Your task to perform on an android device: install app "Move to iOS" Image 0: 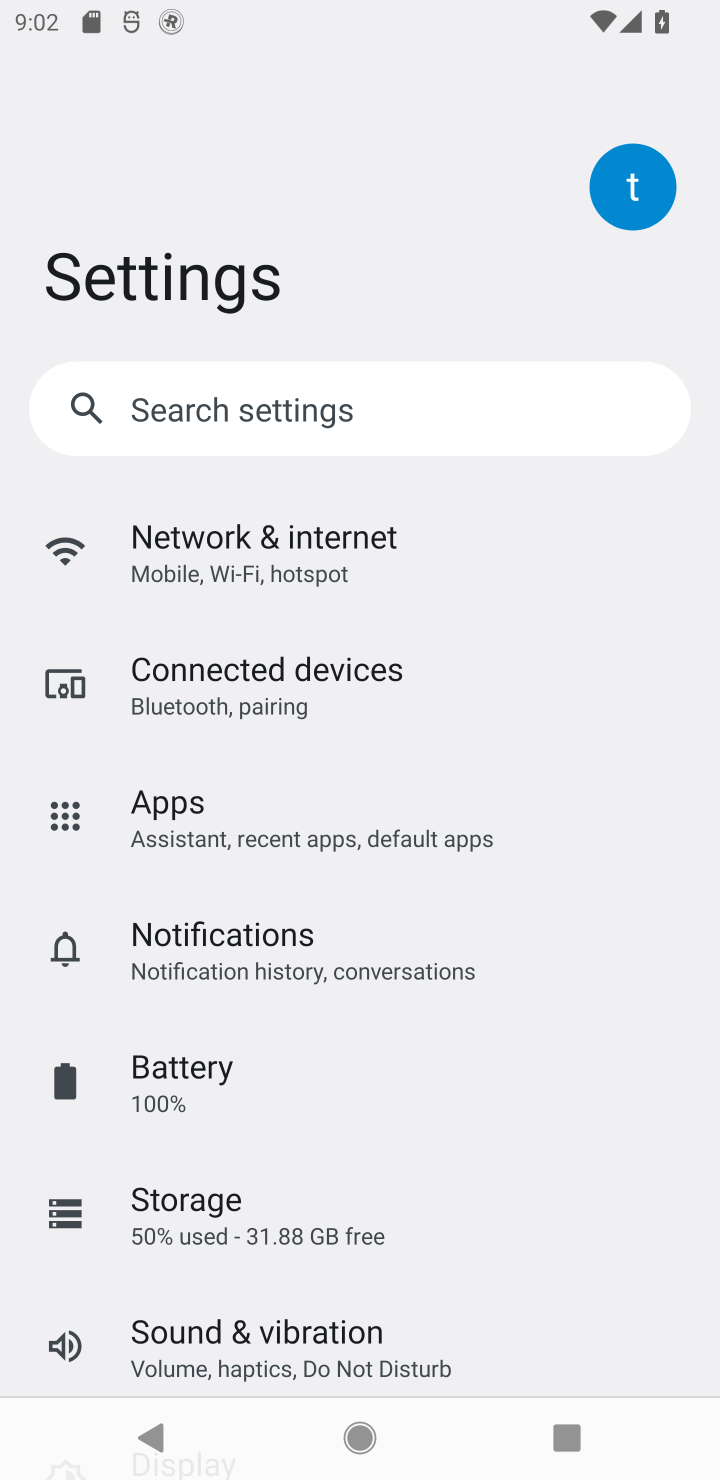
Step 0: press home button
Your task to perform on an android device: install app "Move to iOS" Image 1: 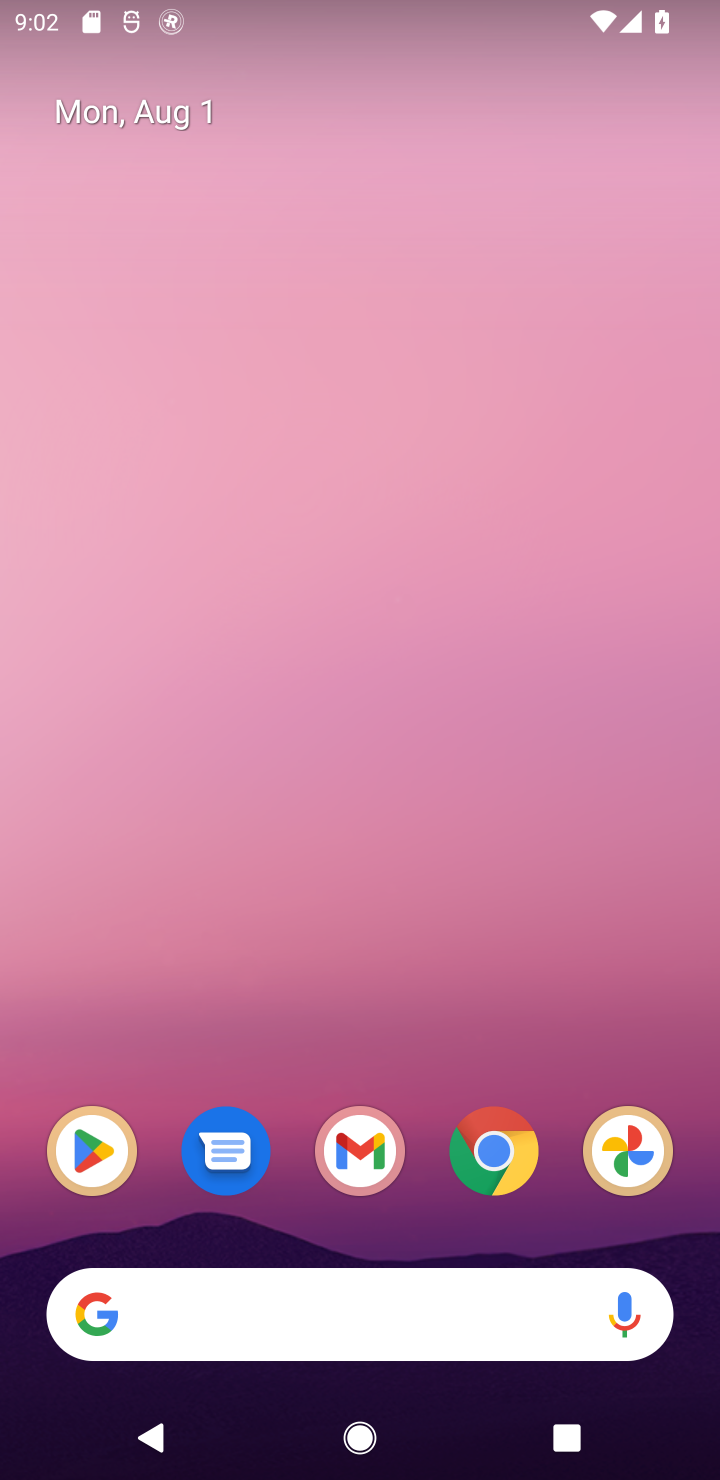
Step 1: click (90, 1191)
Your task to perform on an android device: install app "Move to iOS" Image 2: 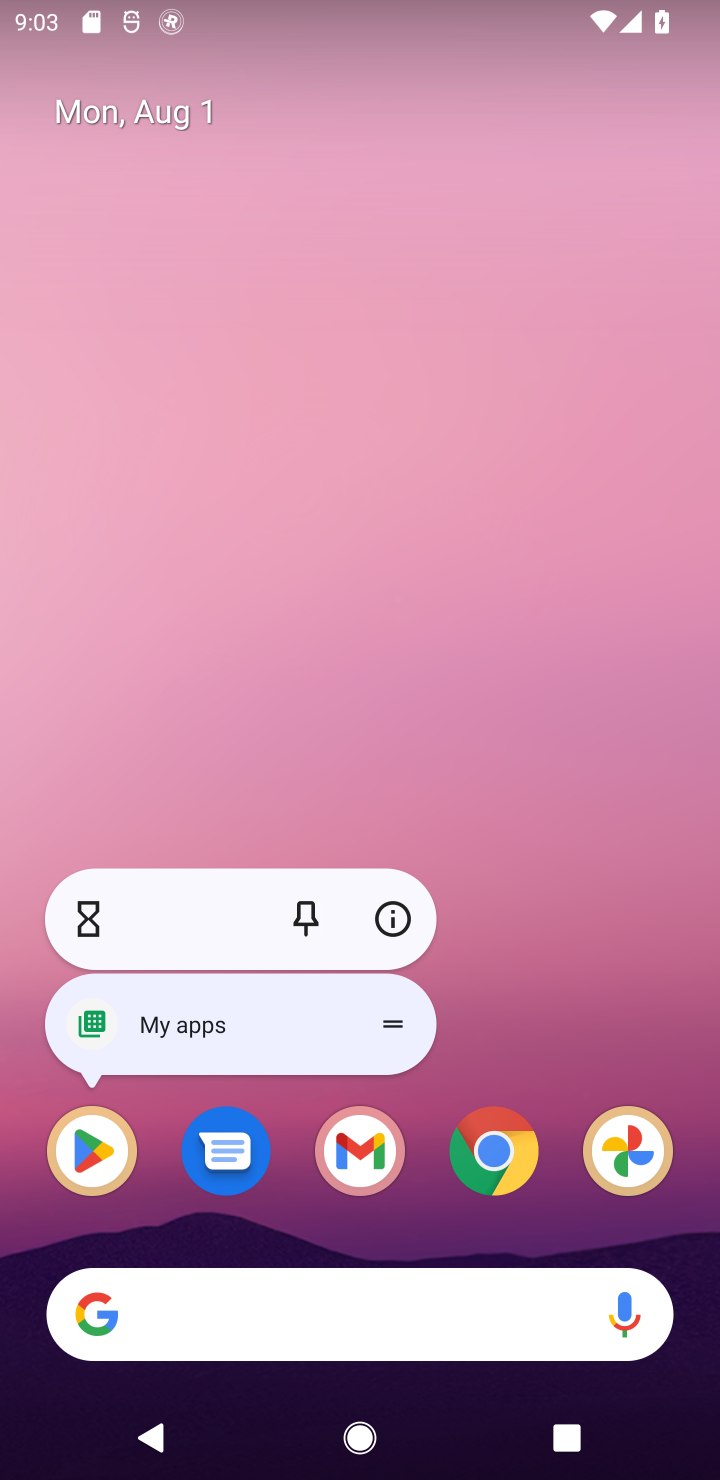
Step 2: click (95, 1163)
Your task to perform on an android device: install app "Move to iOS" Image 3: 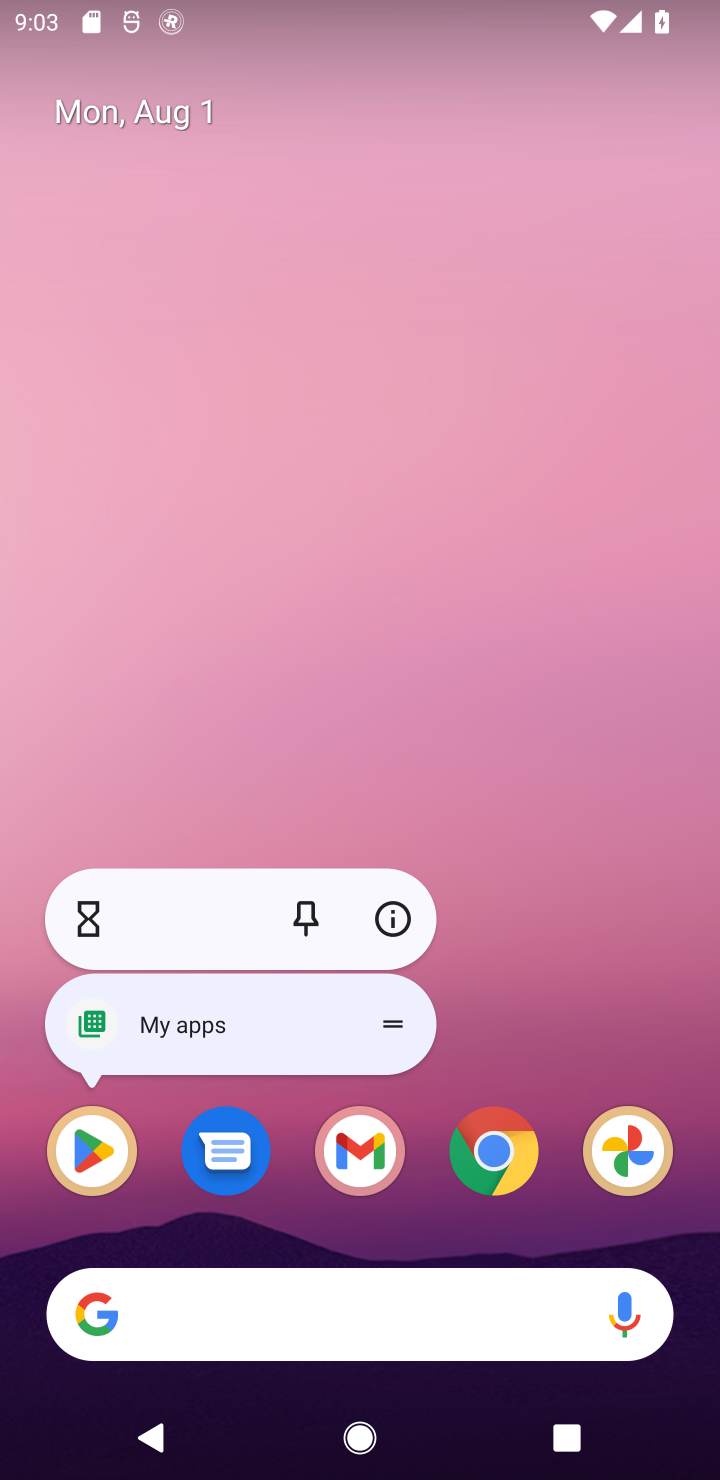
Step 3: click (95, 1163)
Your task to perform on an android device: install app "Move to iOS" Image 4: 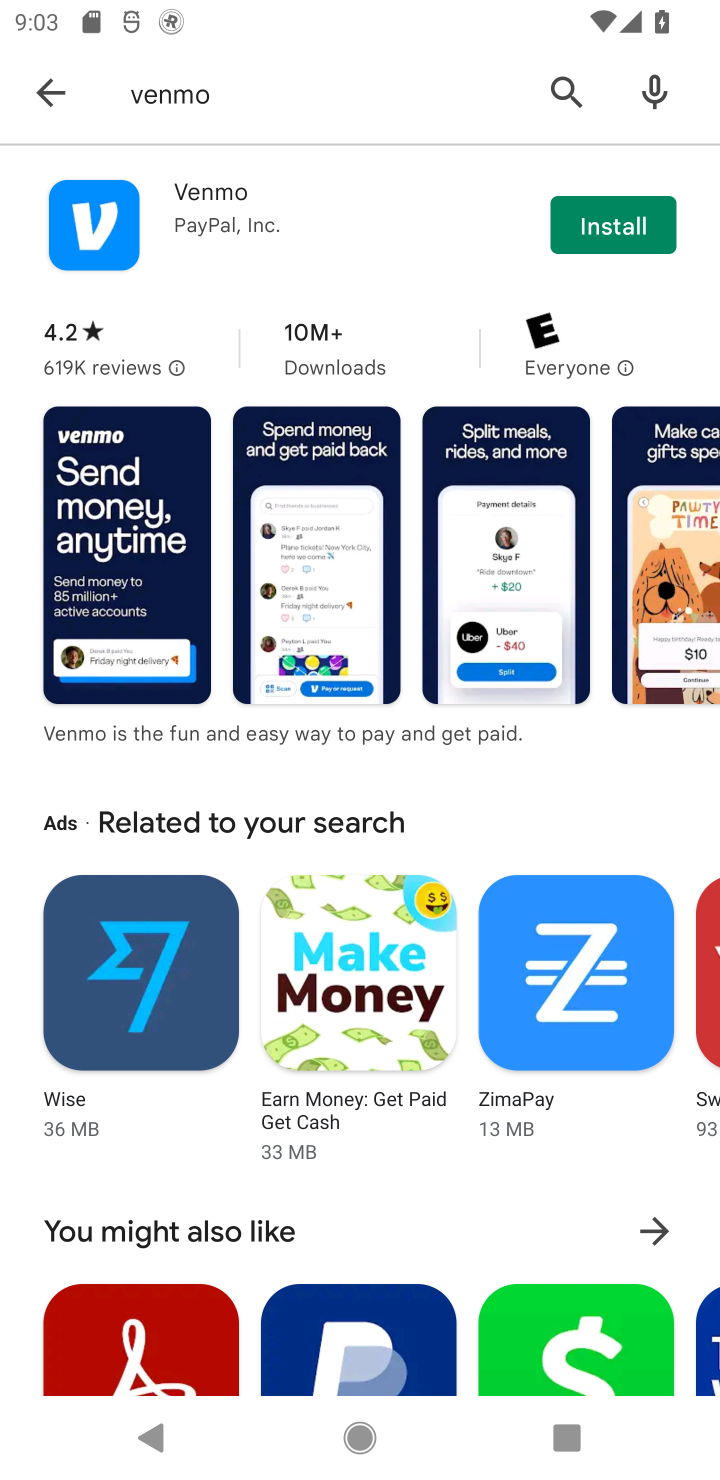
Step 4: click (558, 103)
Your task to perform on an android device: install app "Move to iOS" Image 5: 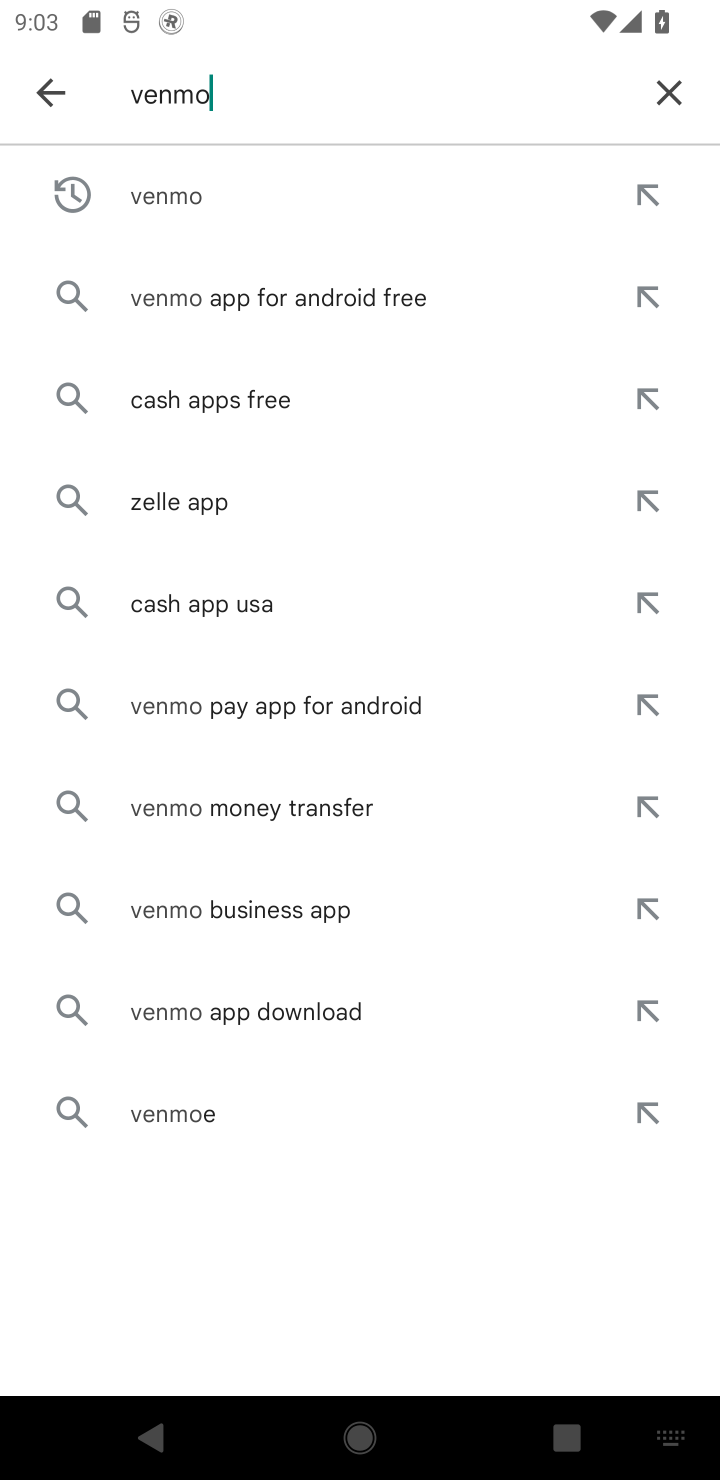
Step 5: click (673, 92)
Your task to perform on an android device: install app "Move to iOS" Image 6: 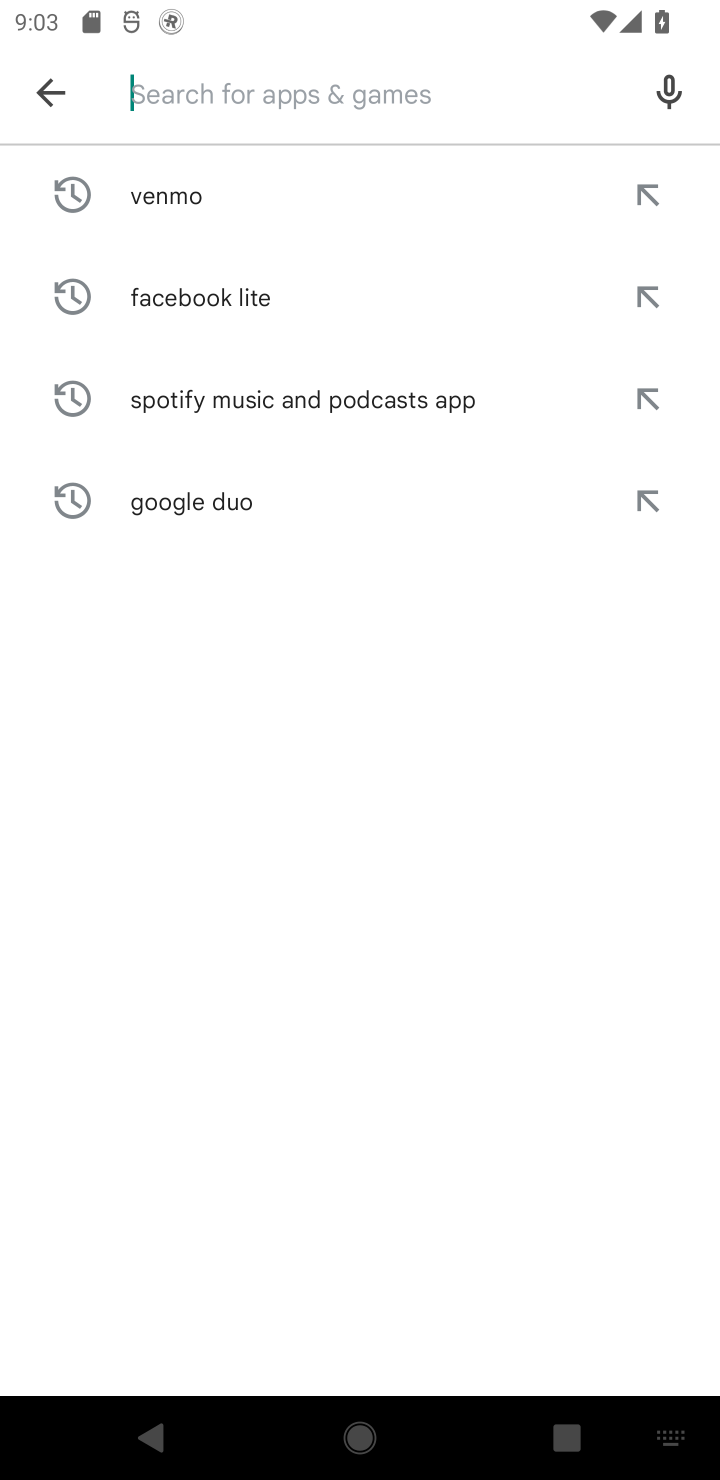
Step 6: type "Move to iOS"
Your task to perform on an android device: install app "Move to iOS" Image 7: 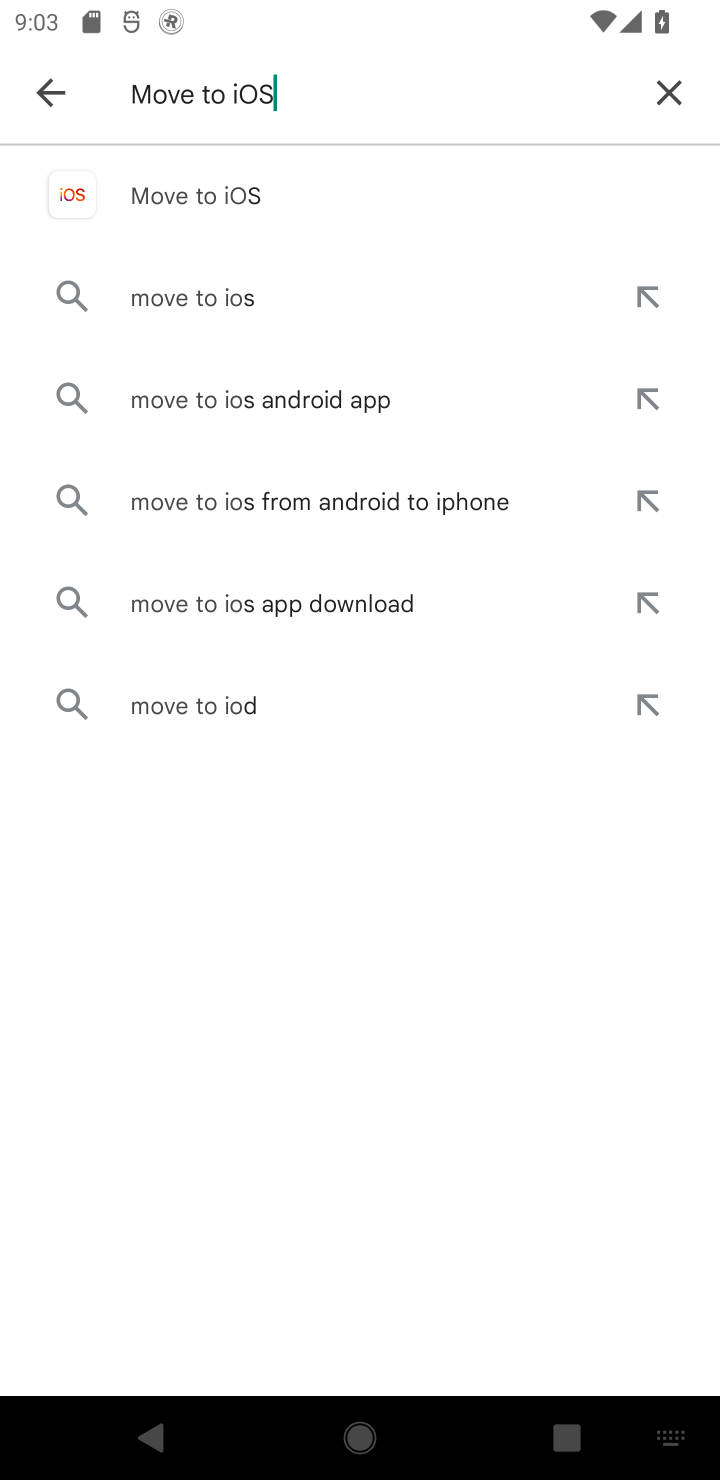
Step 7: type ""
Your task to perform on an android device: install app "Move to iOS" Image 8: 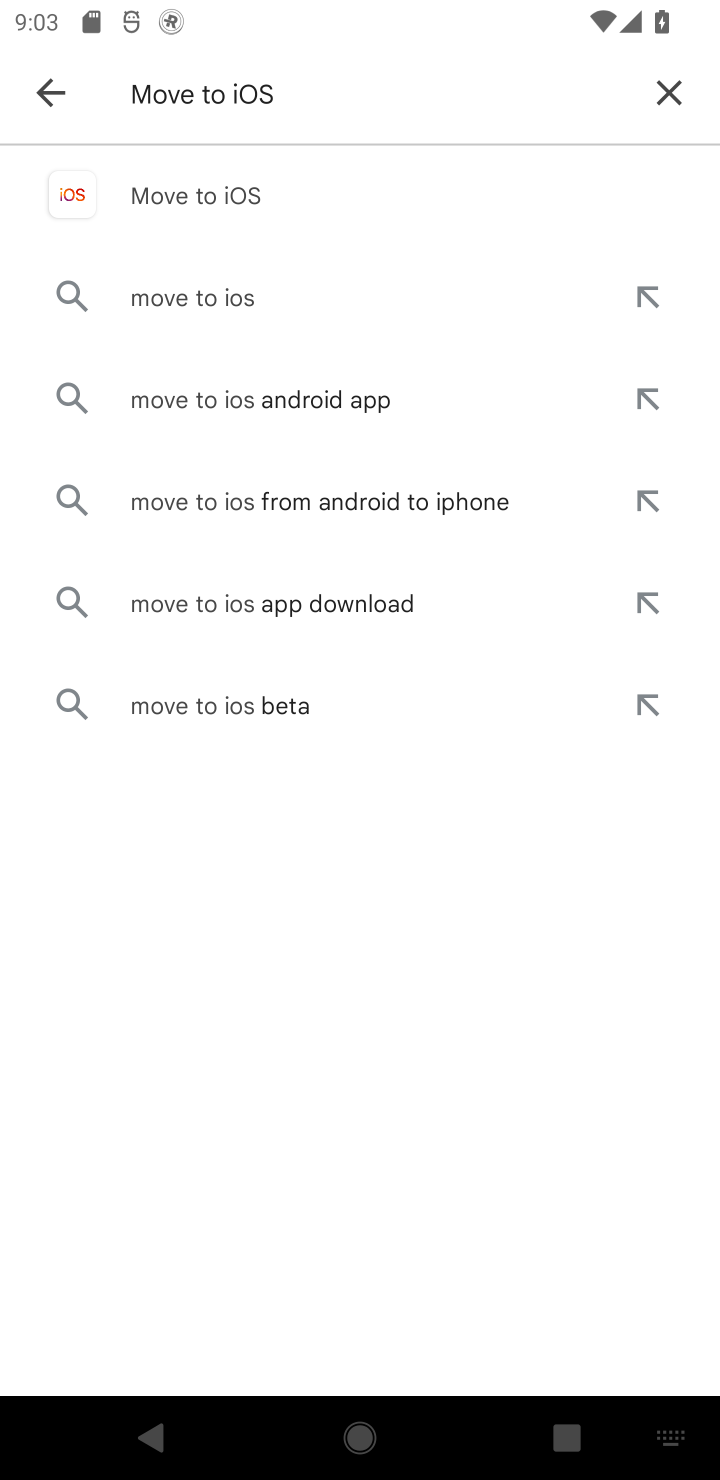
Step 8: click (257, 204)
Your task to perform on an android device: install app "Move to iOS" Image 9: 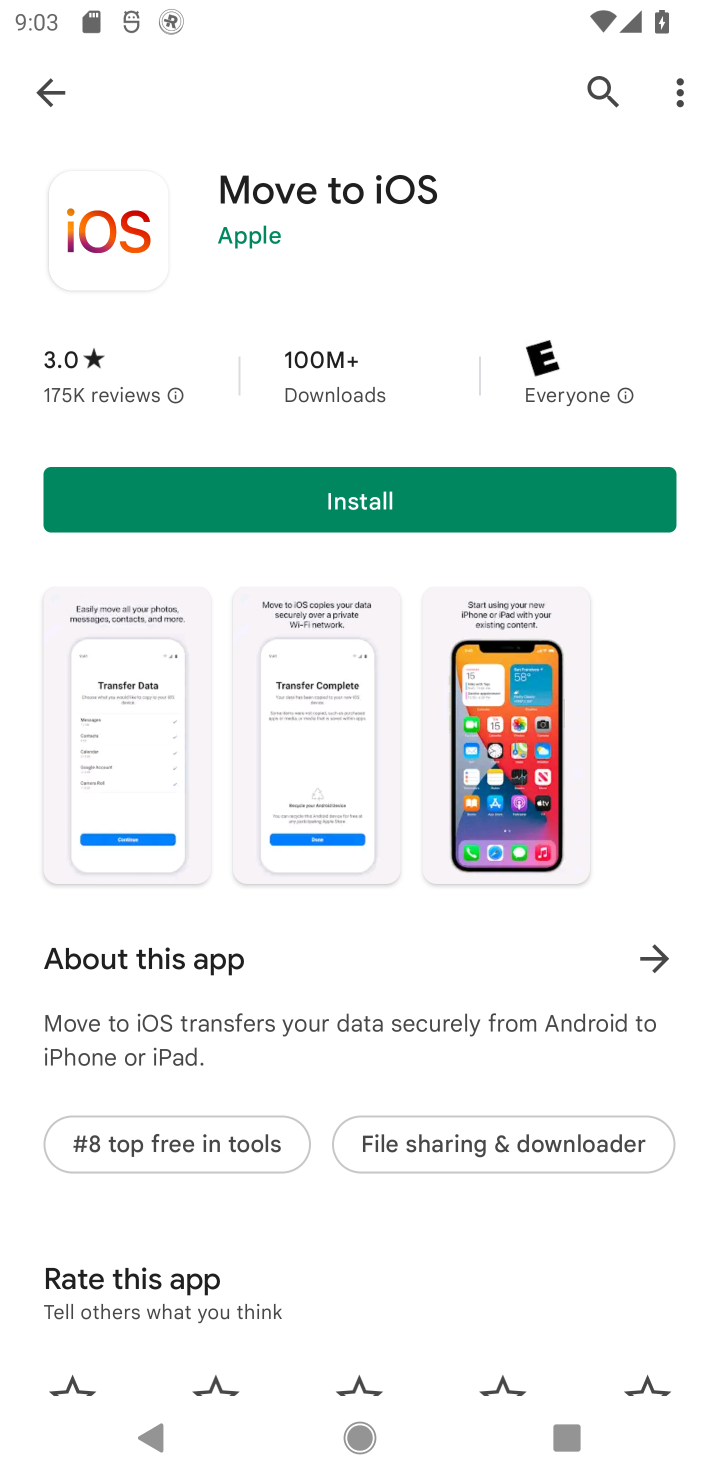
Step 9: click (299, 492)
Your task to perform on an android device: install app "Move to iOS" Image 10: 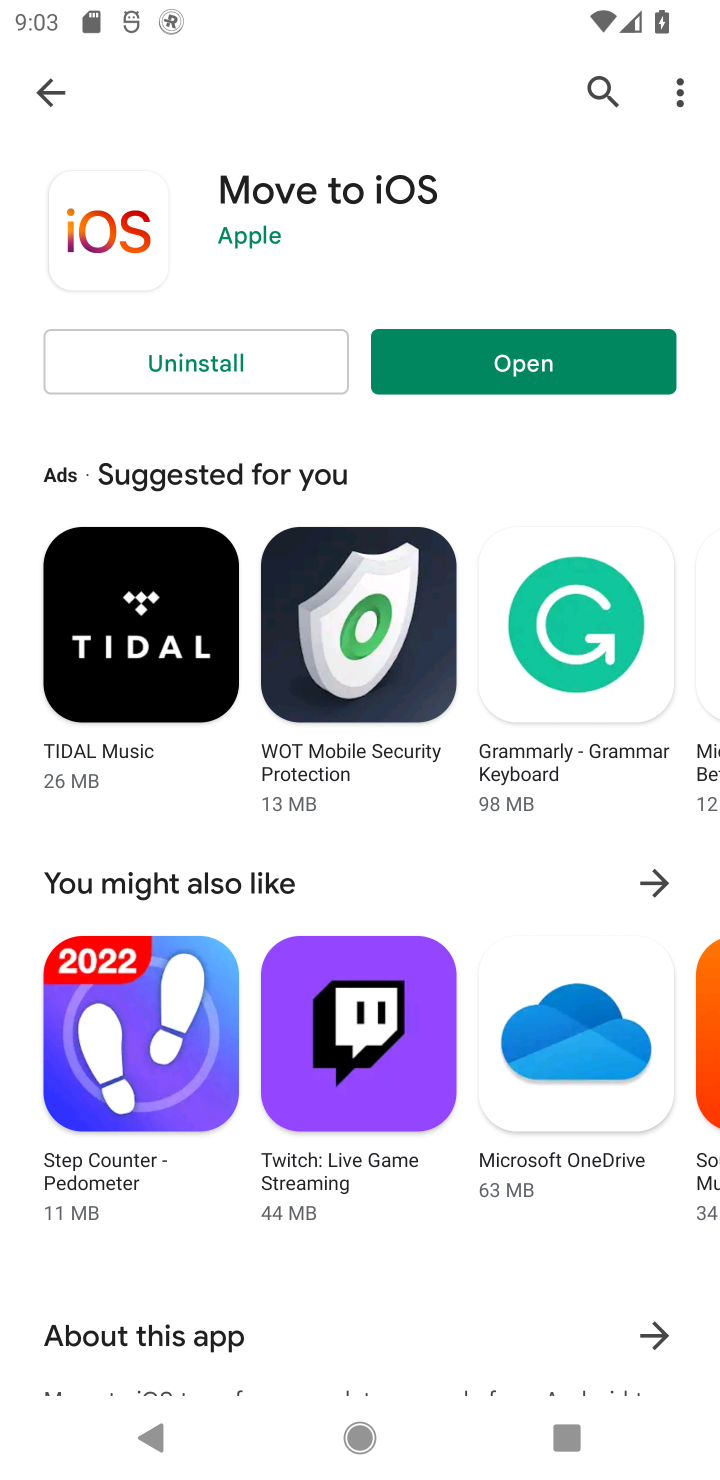
Step 10: task complete